Your task to perform on an android device: Turn on the flashlight Image 0: 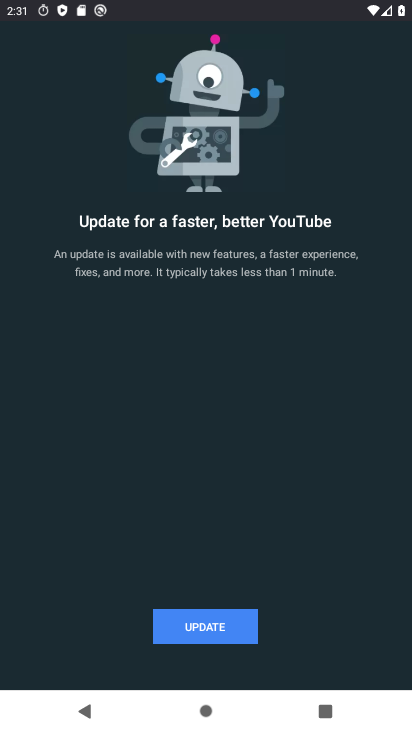
Step 0: press home button
Your task to perform on an android device: Turn on the flashlight Image 1: 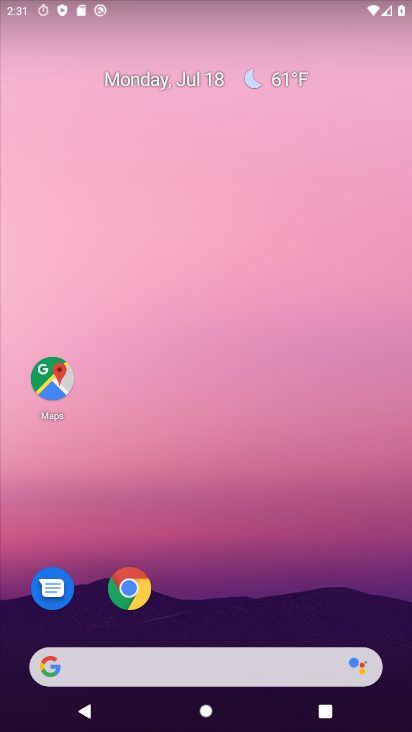
Step 1: drag from (273, 616) to (2, 16)
Your task to perform on an android device: Turn on the flashlight Image 2: 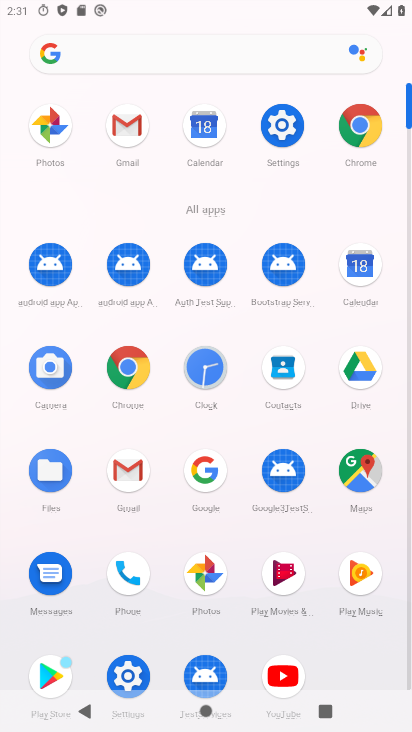
Step 2: click (259, 134)
Your task to perform on an android device: Turn on the flashlight Image 3: 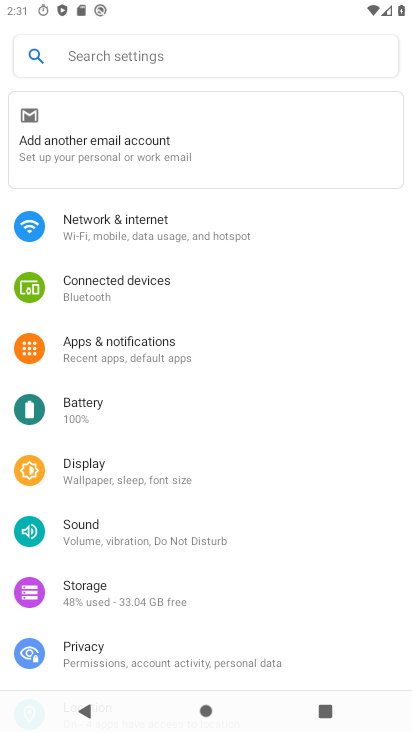
Step 3: task complete